Your task to perform on an android device: allow notifications from all sites in the chrome app Image 0: 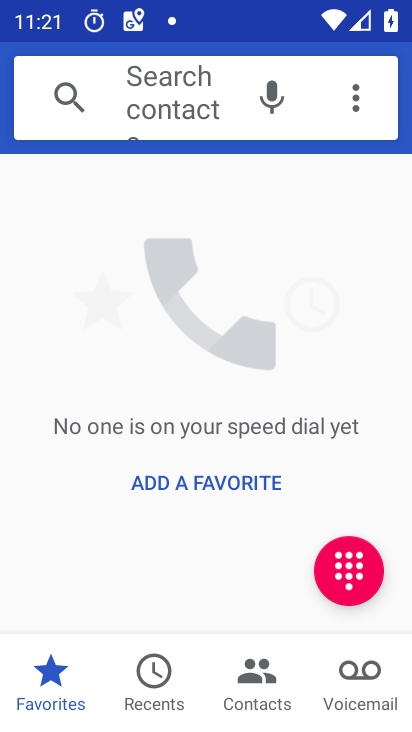
Step 0: press home button
Your task to perform on an android device: allow notifications from all sites in the chrome app Image 1: 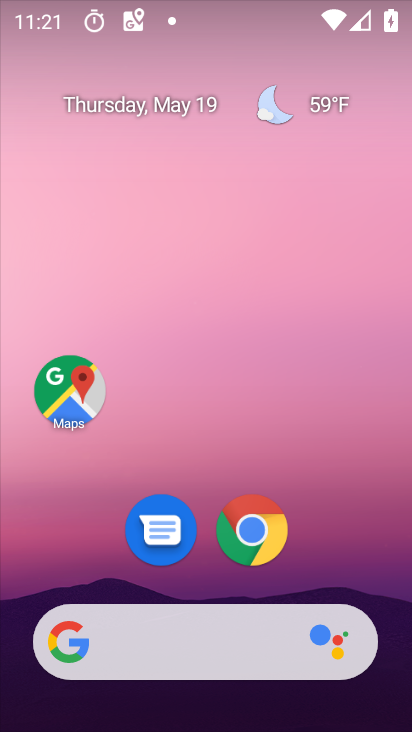
Step 1: drag from (375, 484) to (361, 206)
Your task to perform on an android device: allow notifications from all sites in the chrome app Image 2: 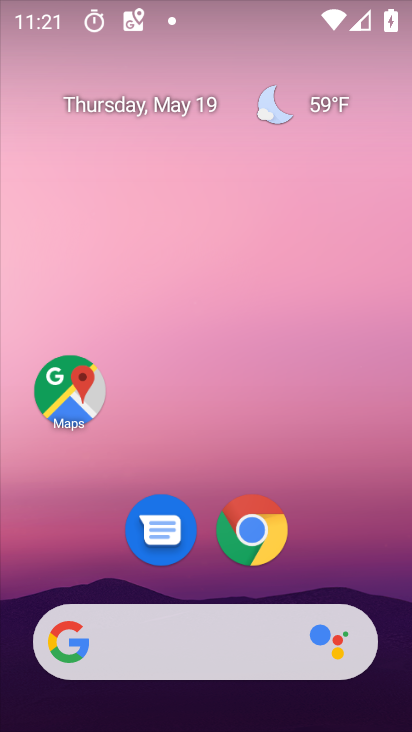
Step 2: click (267, 533)
Your task to perform on an android device: allow notifications from all sites in the chrome app Image 3: 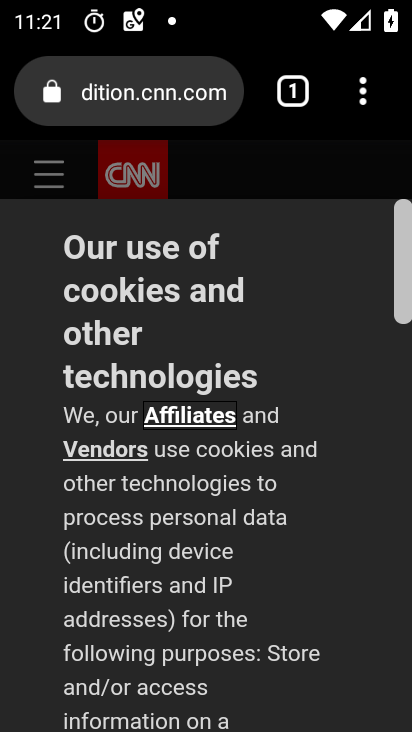
Step 3: drag from (346, 76) to (106, 557)
Your task to perform on an android device: allow notifications from all sites in the chrome app Image 4: 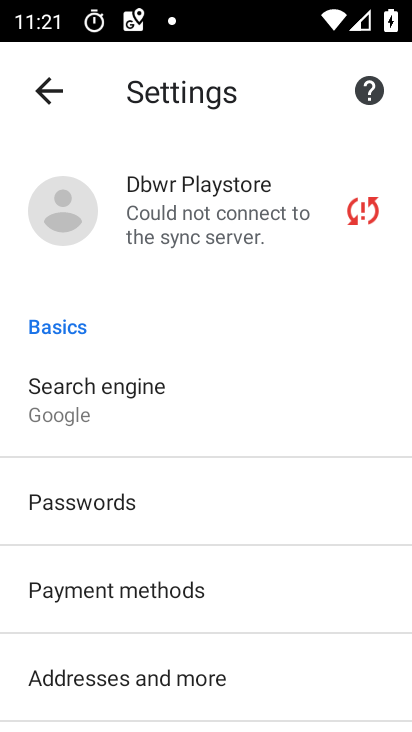
Step 4: drag from (316, 631) to (292, 293)
Your task to perform on an android device: allow notifications from all sites in the chrome app Image 5: 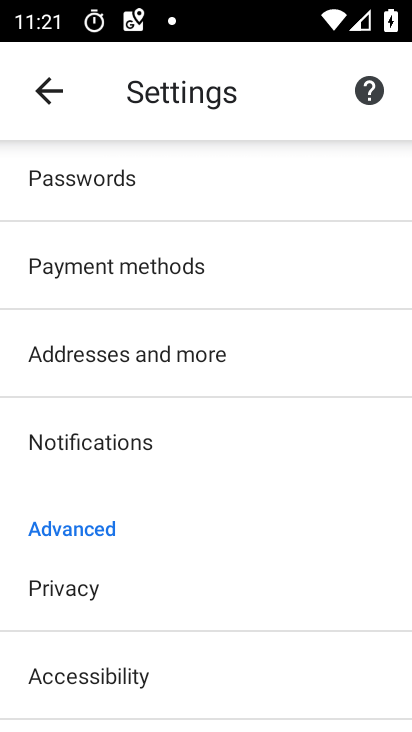
Step 5: drag from (265, 656) to (258, 378)
Your task to perform on an android device: allow notifications from all sites in the chrome app Image 6: 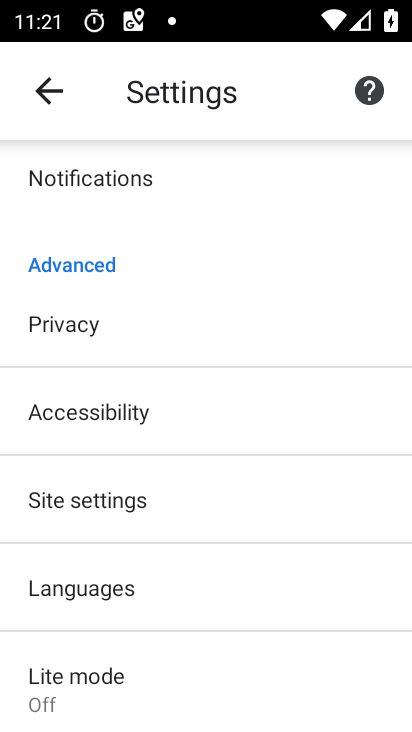
Step 6: click (146, 186)
Your task to perform on an android device: allow notifications from all sites in the chrome app Image 7: 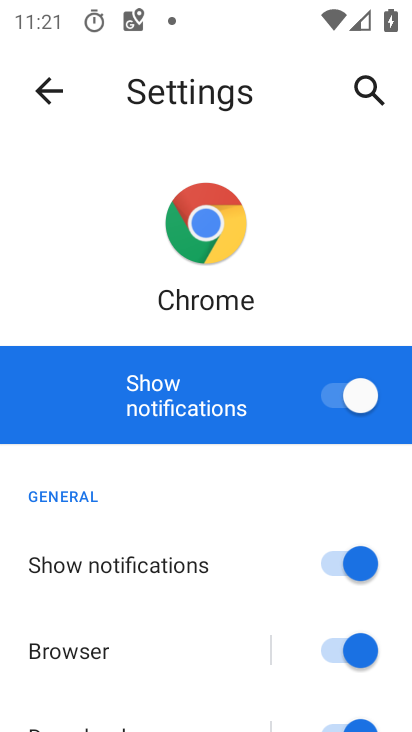
Step 7: click (32, 96)
Your task to perform on an android device: allow notifications from all sites in the chrome app Image 8: 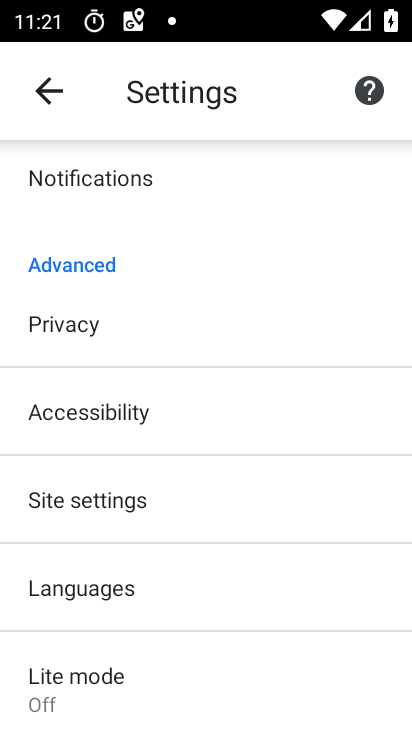
Step 8: click (150, 505)
Your task to perform on an android device: allow notifications from all sites in the chrome app Image 9: 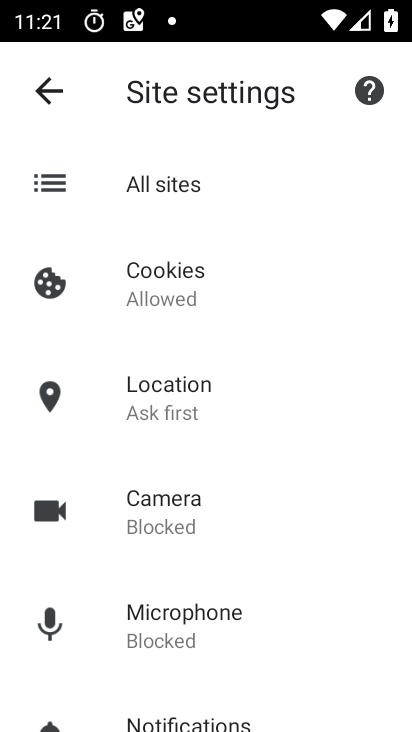
Step 9: click (170, 179)
Your task to perform on an android device: allow notifications from all sites in the chrome app Image 10: 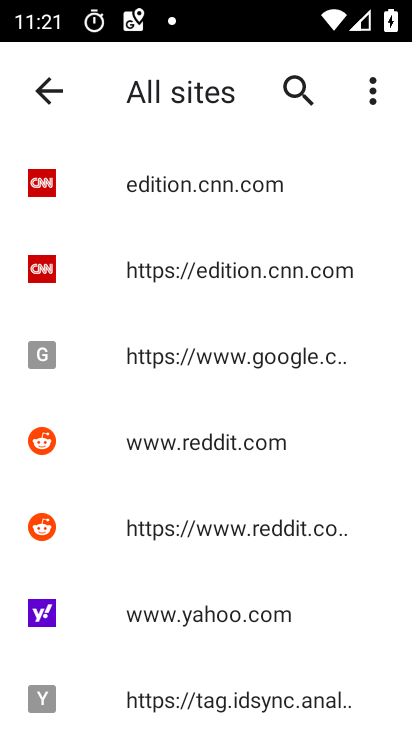
Step 10: task complete